Your task to perform on an android device: Go to Reddit.com Image 0: 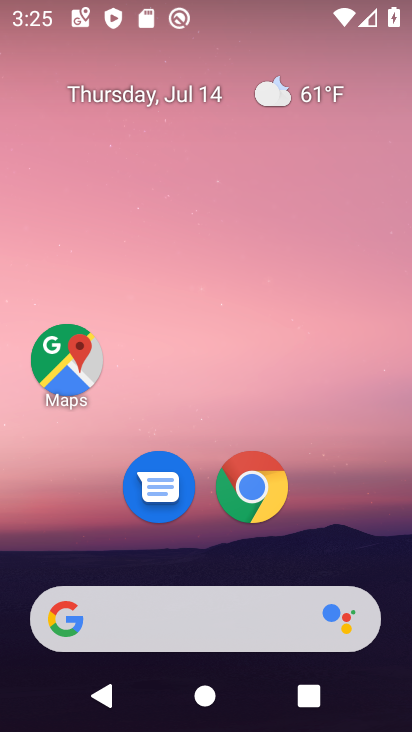
Step 0: click (264, 473)
Your task to perform on an android device: Go to Reddit.com Image 1: 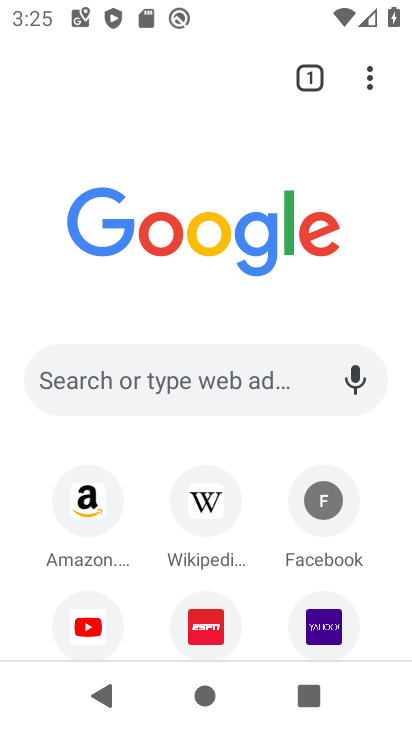
Step 1: click (185, 390)
Your task to perform on an android device: Go to Reddit.com Image 2: 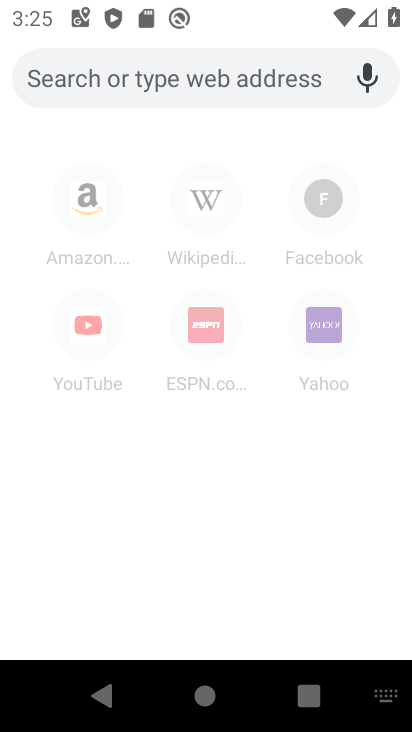
Step 2: type "reddit.com"
Your task to perform on an android device: Go to Reddit.com Image 3: 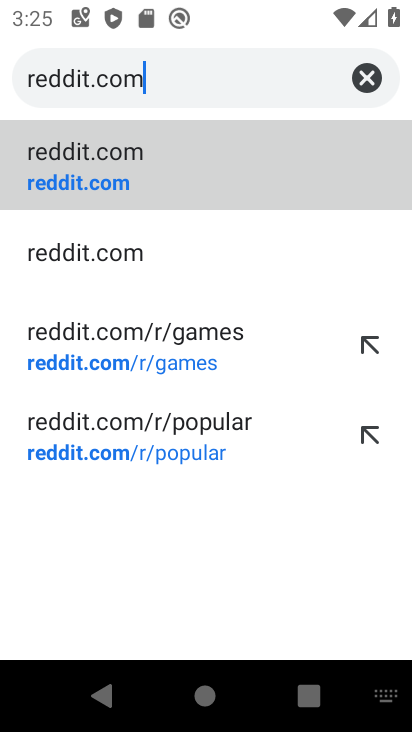
Step 3: click (162, 190)
Your task to perform on an android device: Go to Reddit.com Image 4: 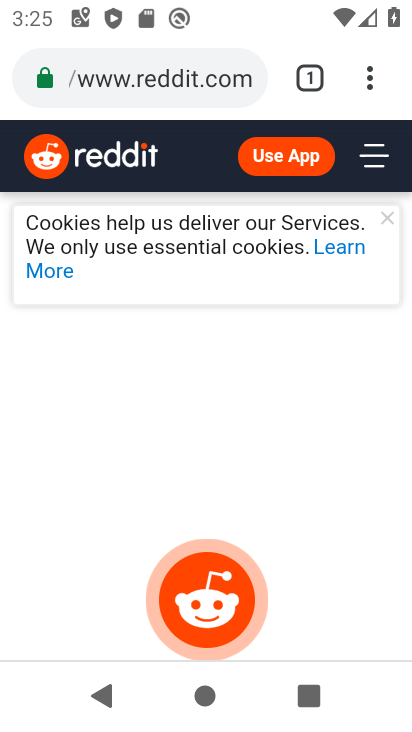
Step 4: task complete